Your task to perform on an android device: remove spam from my inbox in the gmail app Image 0: 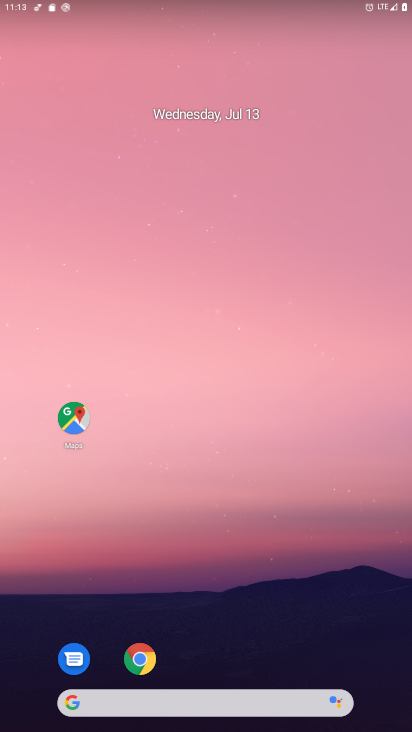
Step 0: press home button
Your task to perform on an android device: remove spam from my inbox in the gmail app Image 1: 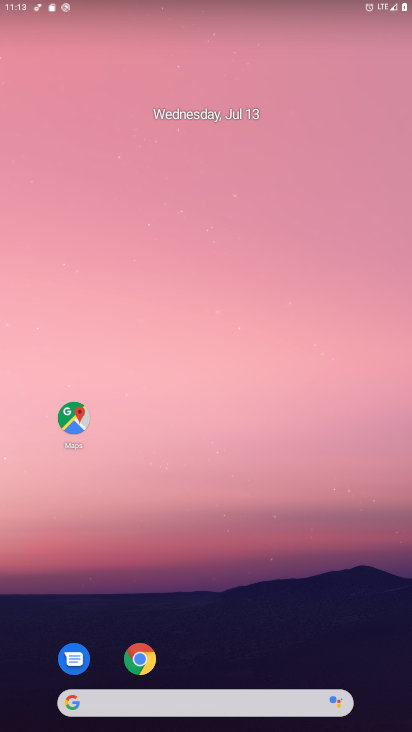
Step 1: drag from (210, 667) to (187, 12)
Your task to perform on an android device: remove spam from my inbox in the gmail app Image 2: 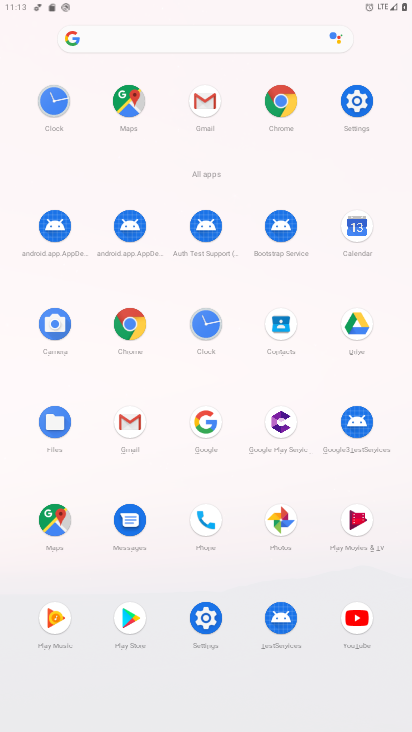
Step 2: click (202, 93)
Your task to perform on an android device: remove spam from my inbox in the gmail app Image 3: 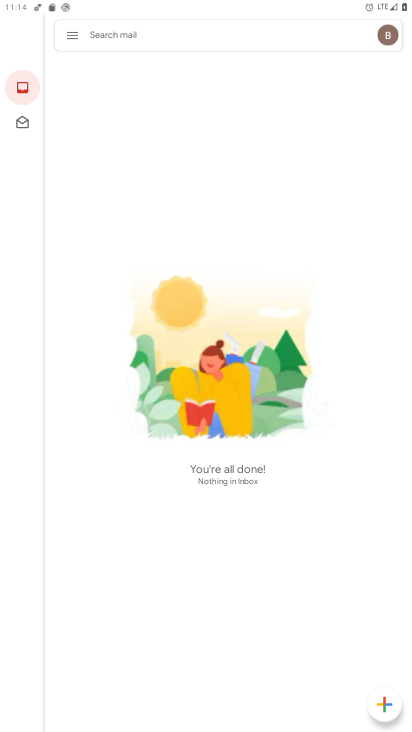
Step 3: click (69, 28)
Your task to perform on an android device: remove spam from my inbox in the gmail app Image 4: 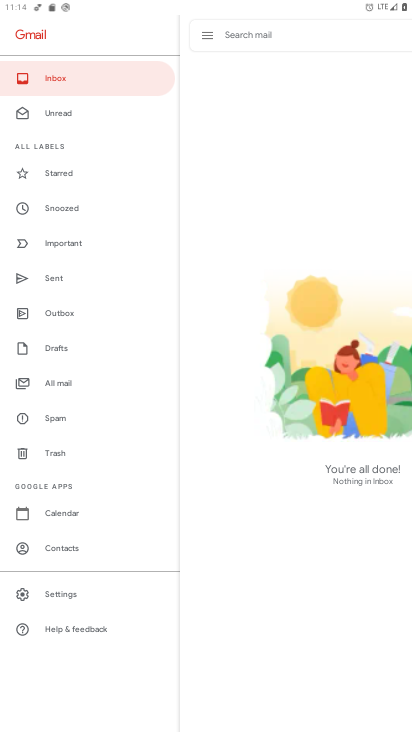
Step 4: click (59, 415)
Your task to perform on an android device: remove spam from my inbox in the gmail app Image 5: 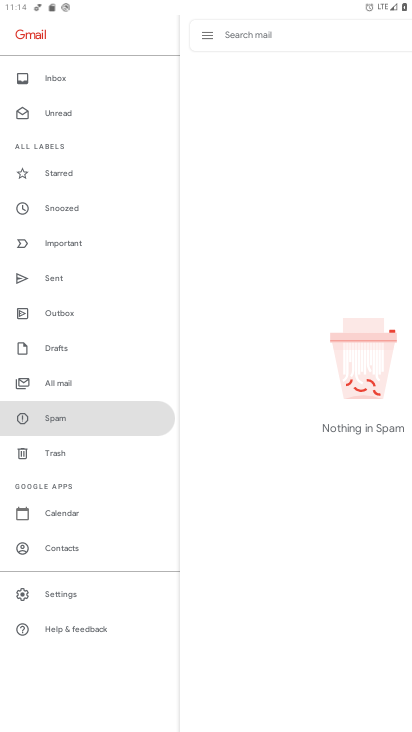
Step 5: task complete